Your task to perform on an android device: Clear all items from cart on ebay. Search for logitech g pro on ebay, select the first entry, add it to the cart, then select checkout. Image 0: 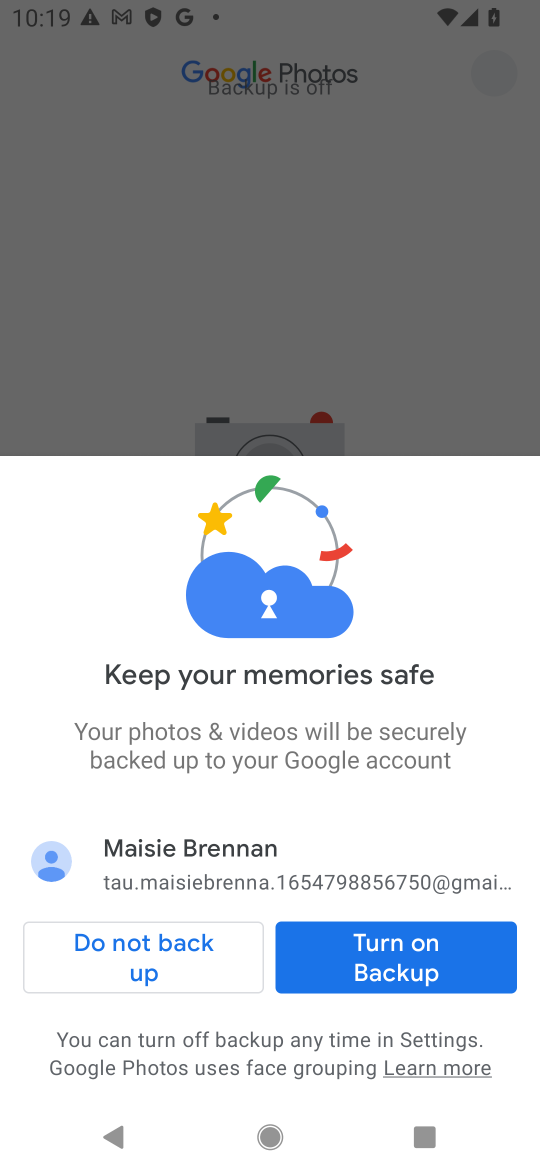
Step 0: press home button
Your task to perform on an android device: Clear all items from cart on ebay. Search for logitech g pro on ebay, select the first entry, add it to the cart, then select checkout. Image 1: 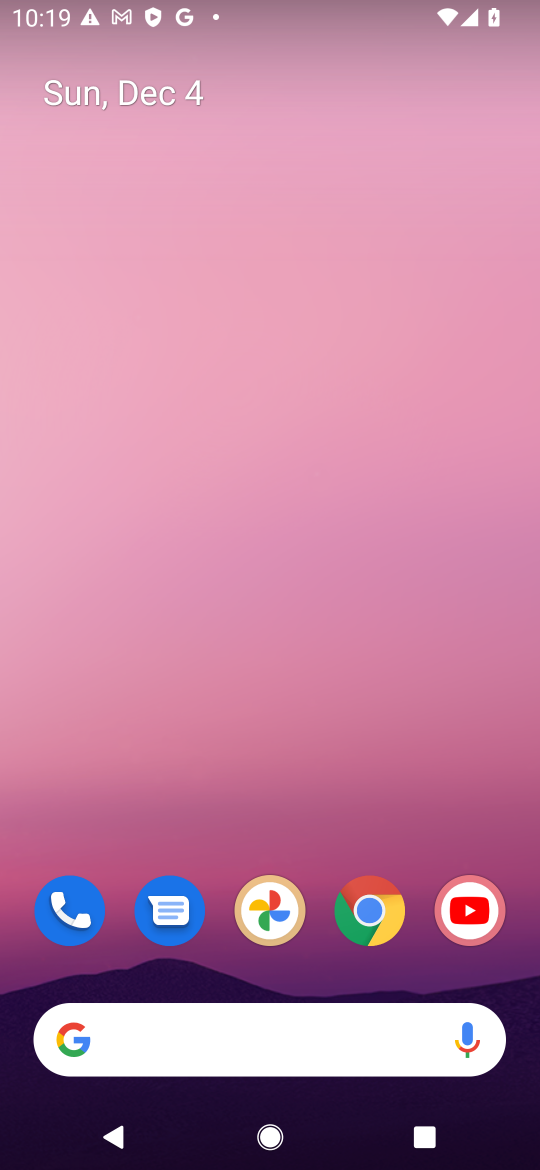
Step 1: drag from (331, 1090) to (353, 154)
Your task to perform on an android device: Clear all items from cart on ebay. Search for logitech g pro on ebay, select the first entry, add it to the cart, then select checkout. Image 2: 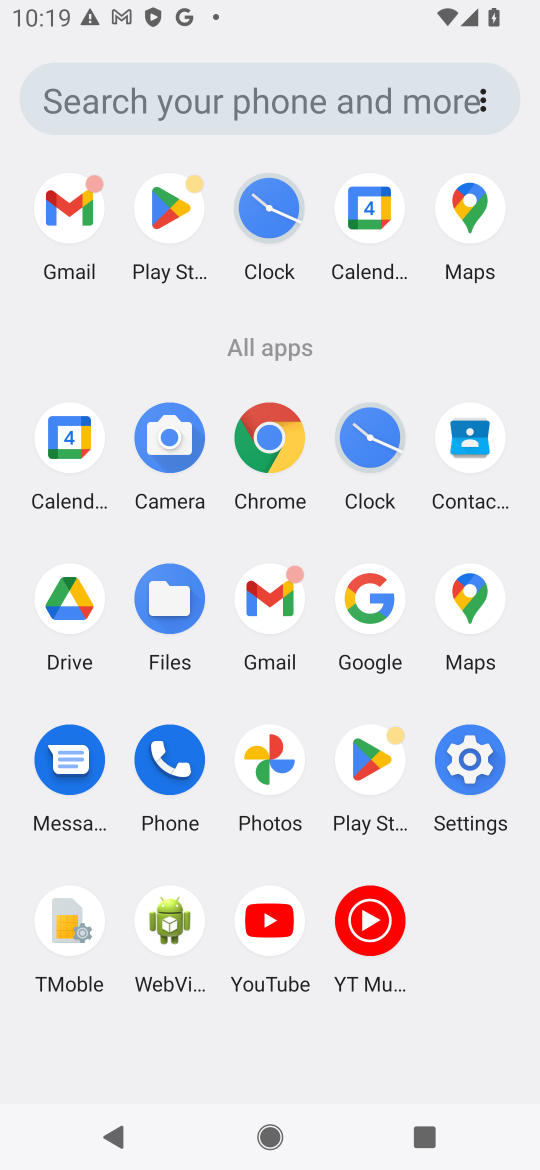
Step 2: click (277, 436)
Your task to perform on an android device: Clear all items from cart on ebay. Search for logitech g pro on ebay, select the first entry, add it to the cart, then select checkout. Image 3: 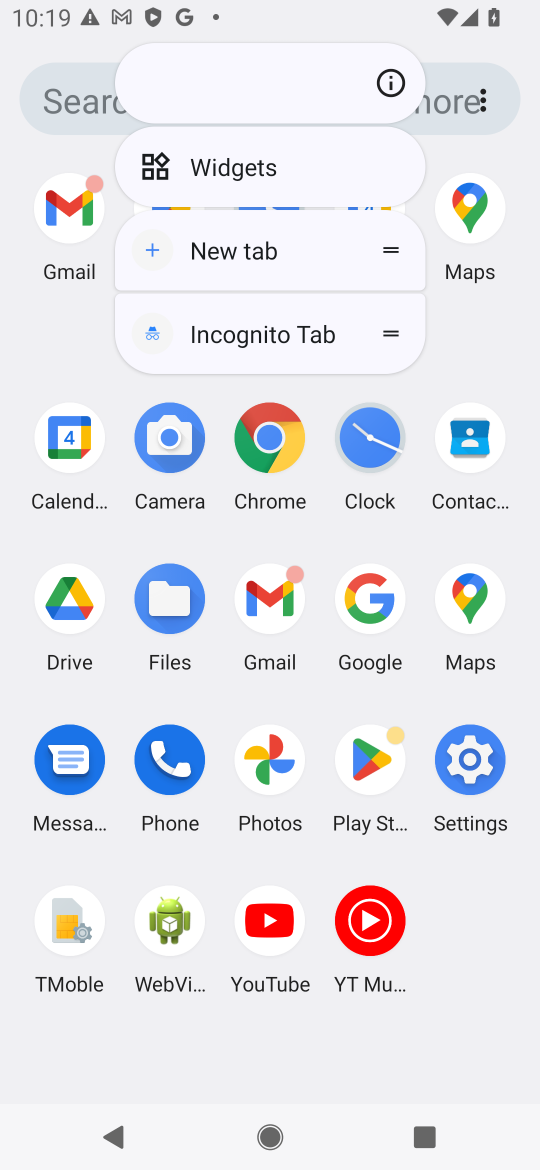
Step 3: click (283, 439)
Your task to perform on an android device: Clear all items from cart on ebay. Search for logitech g pro on ebay, select the first entry, add it to the cart, then select checkout. Image 4: 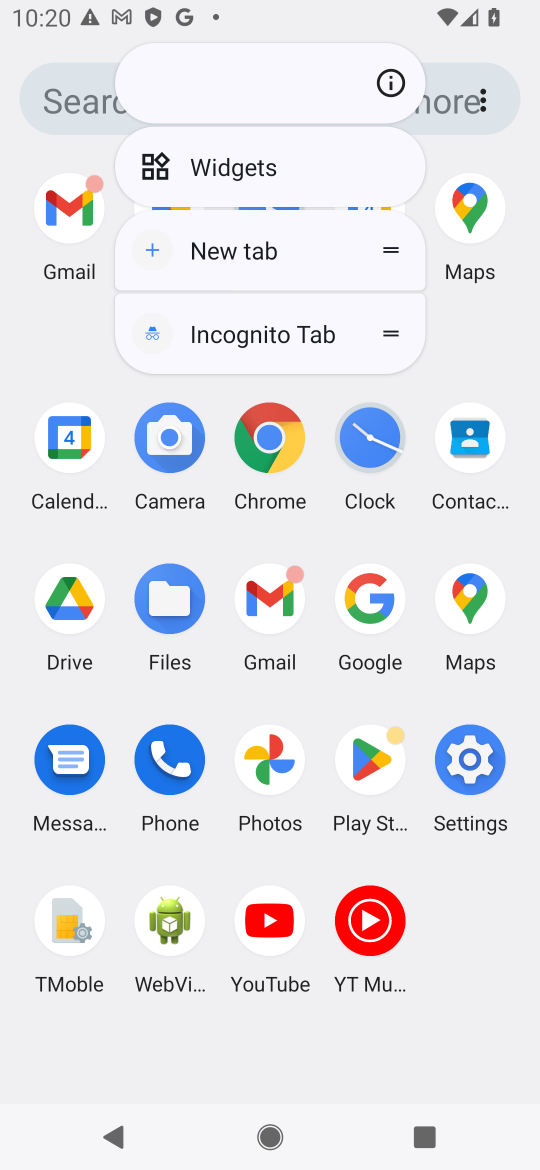
Step 4: click (279, 430)
Your task to perform on an android device: Clear all items from cart on ebay. Search for logitech g pro on ebay, select the first entry, add it to the cart, then select checkout. Image 5: 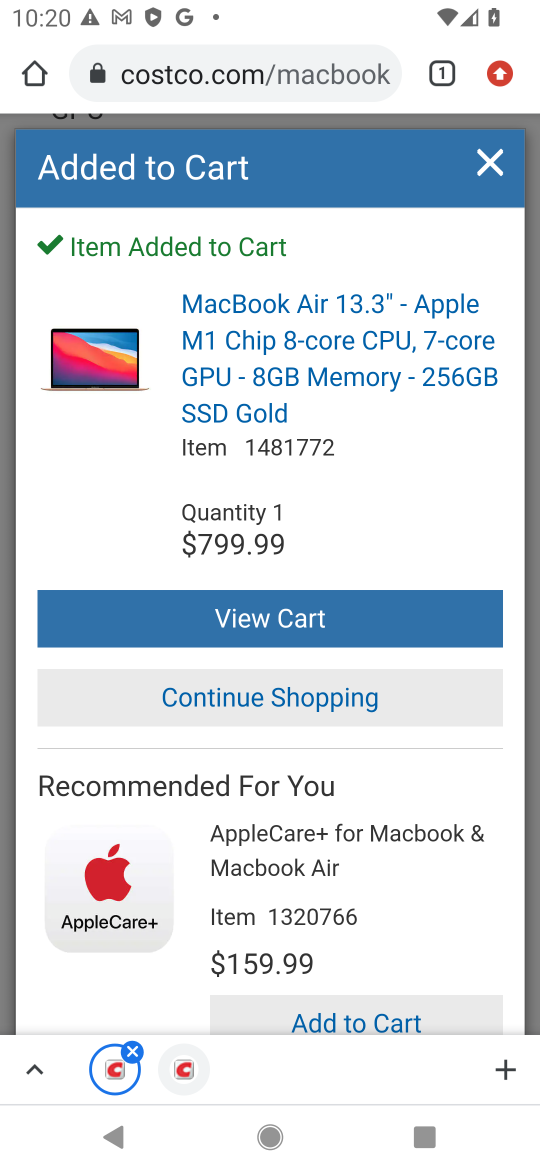
Step 5: click (315, 67)
Your task to perform on an android device: Clear all items from cart on ebay. Search for logitech g pro on ebay, select the first entry, add it to the cart, then select checkout. Image 6: 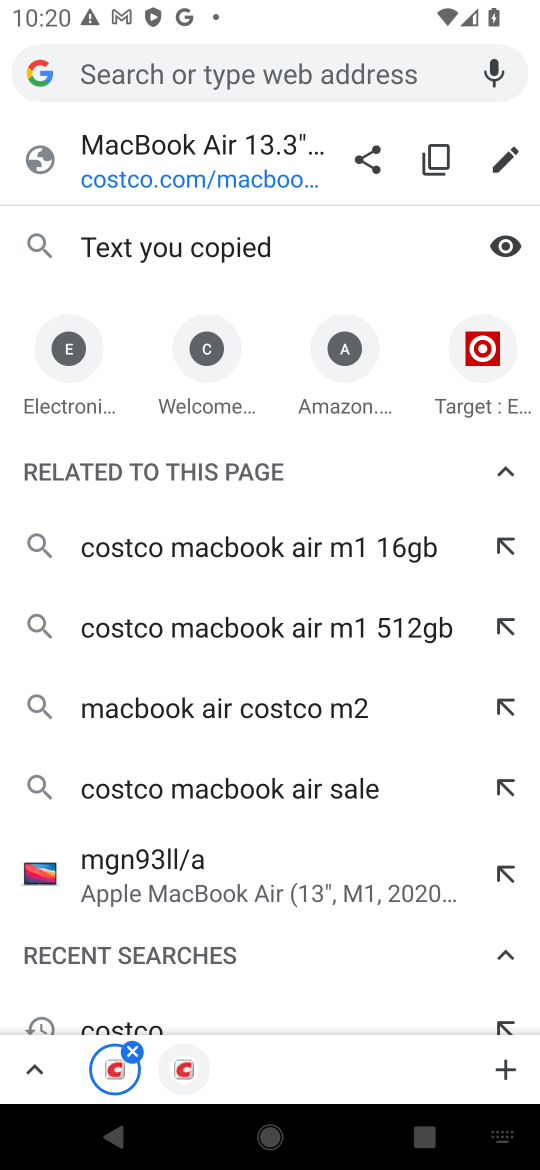
Step 6: type "ebay"
Your task to perform on an android device: Clear all items from cart on ebay. Search for logitech g pro on ebay, select the first entry, add it to the cart, then select checkout. Image 7: 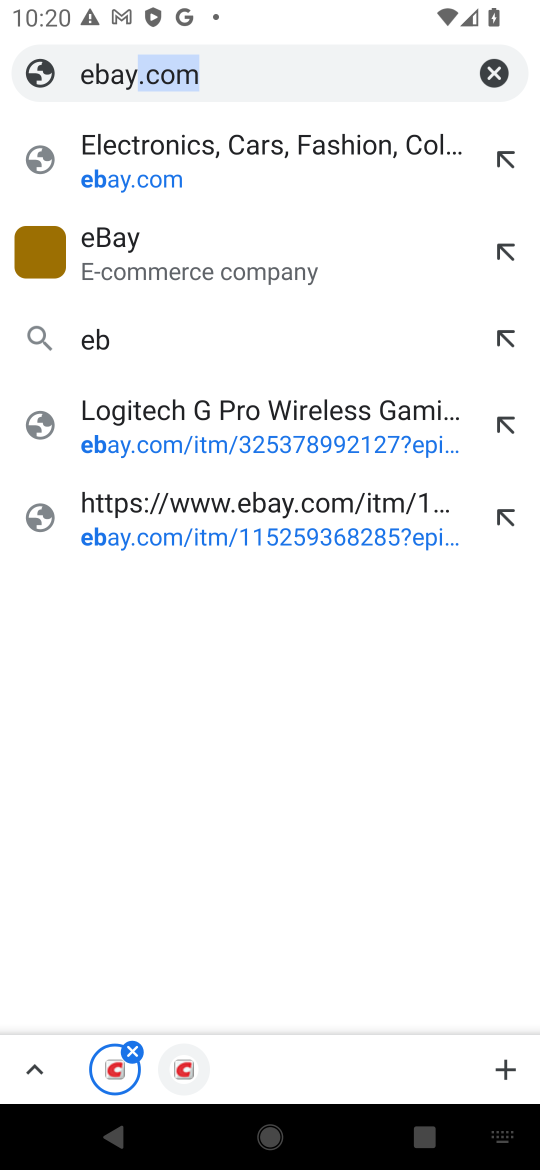
Step 7: type ""
Your task to perform on an android device: Clear all items from cart on ebay. Search for logitech g pro on ebay, select the first entry, add it to the cart, then select checkout. Image 8: 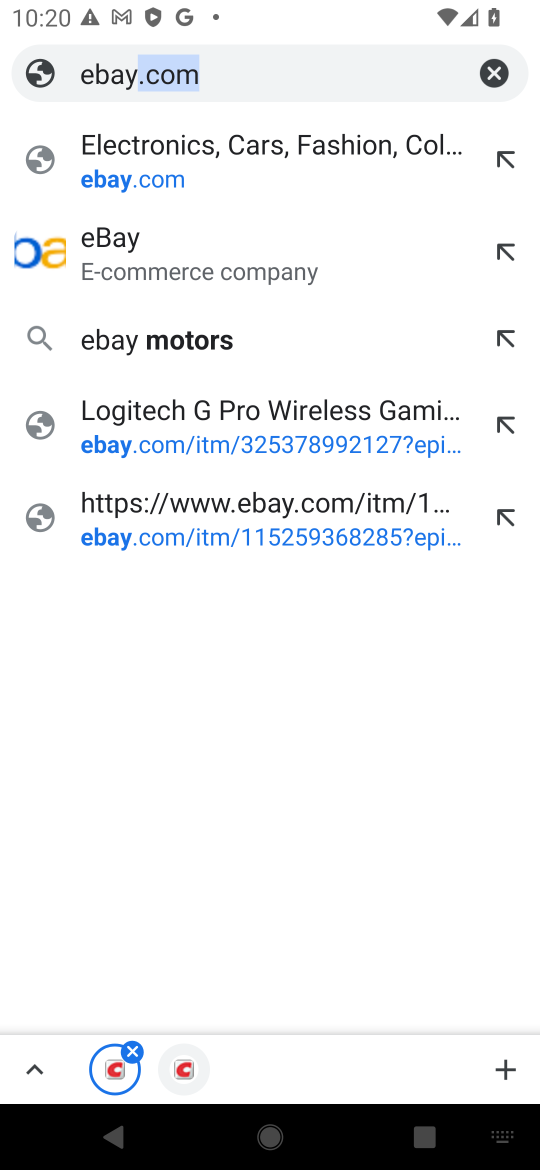
Step 8: click (148, 171)
Your task to perform on an android device: Clear all items from cart on ebay. Search for logitech g pro on ebay, select the first entry, add it to the cart, then select checkout. Image 9: 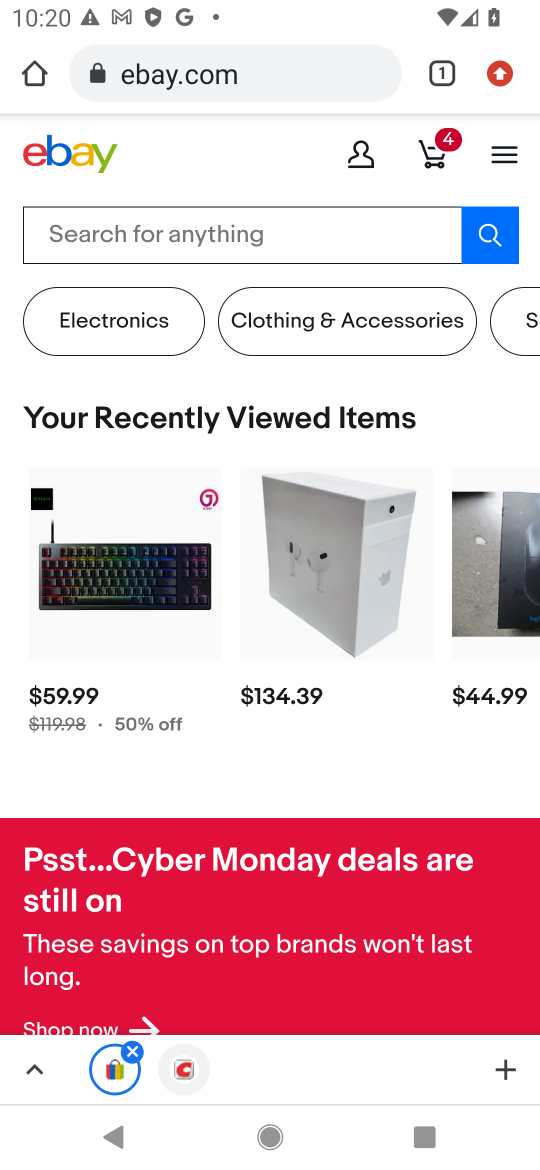
Step 9: click (440, 148)
Your task to perform on an android device: Clear all items from cart on ebay. Search for logitech g pro on ebay, select the first entry, add it to the cart, then select checkout. Image 10: 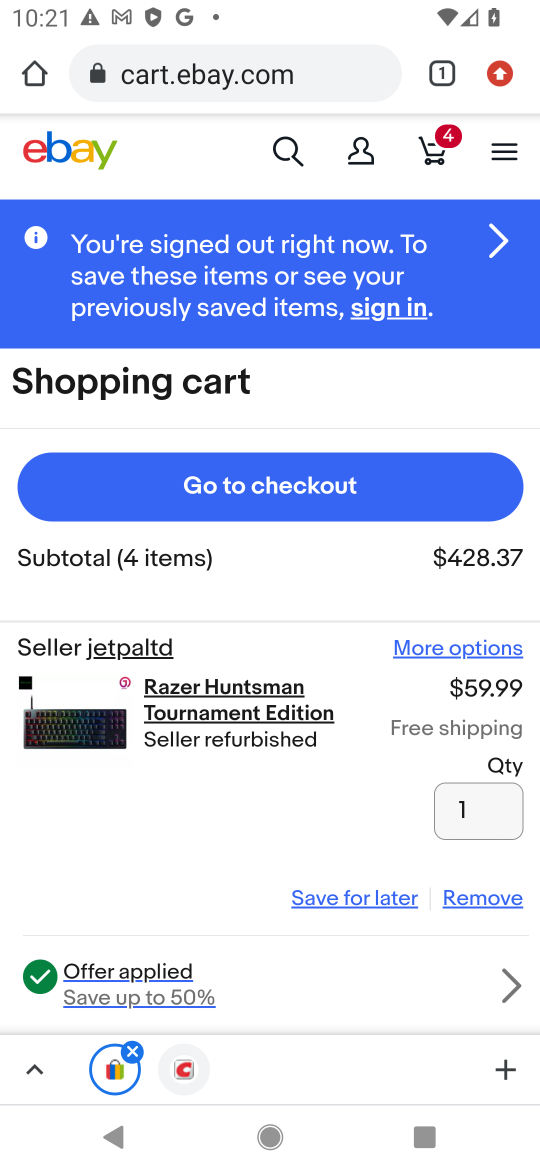
Step 10: drag from (275, 838) to (398, 931)
Your task to perform on an android device: Clear all items from cart on ebay. Search for logitech g pro on ebay, select the first entry, add it to the cart, then select checkout. Image 11: 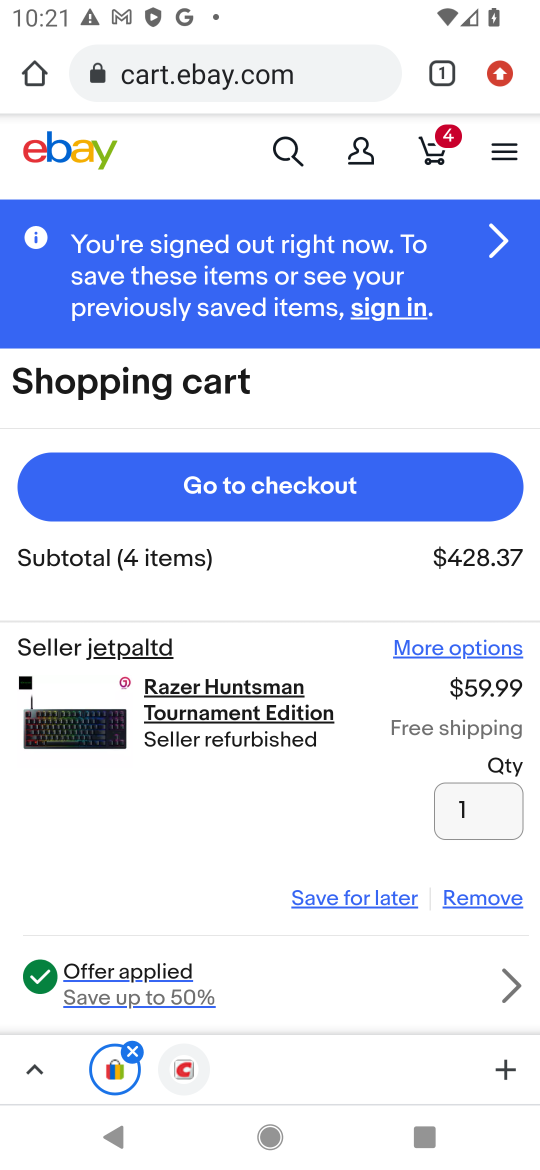
Step 11: click (485, 897)
Your task to perform on an android device: Clear all items from cart on ebay. Search for logitech g pro on ebay, select the first entry, add it to the cart, then select checkout. Image 12: 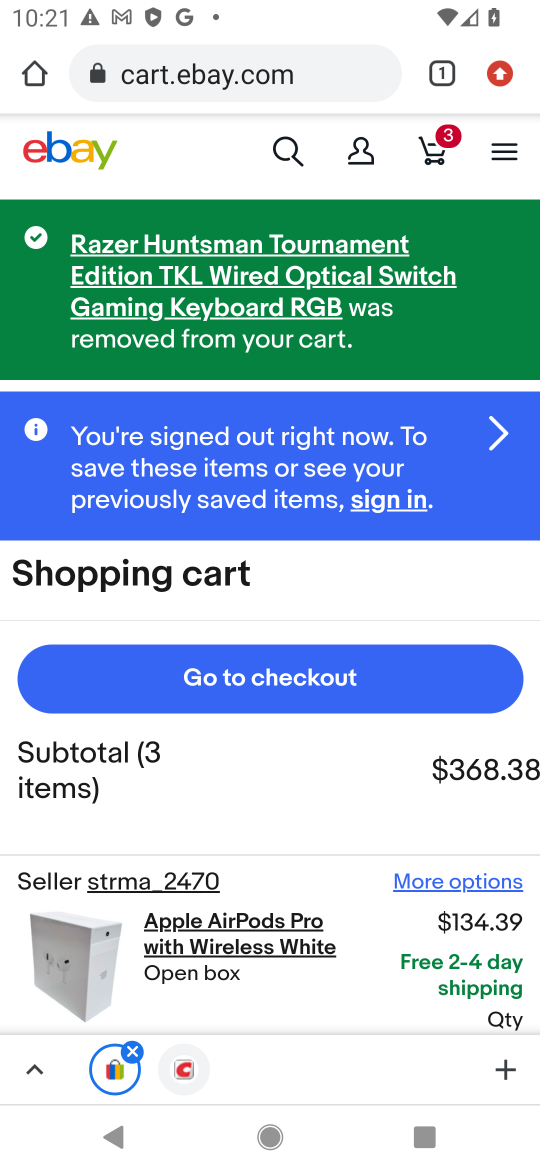
Step 12: drag from (361, 669) to (359, 352)
Your task to perform on an android device: Clear all items from cart on ebay. Search for logitech g pro on ebay, select the first entry, add it to the cart, then select checkout. Image 13: 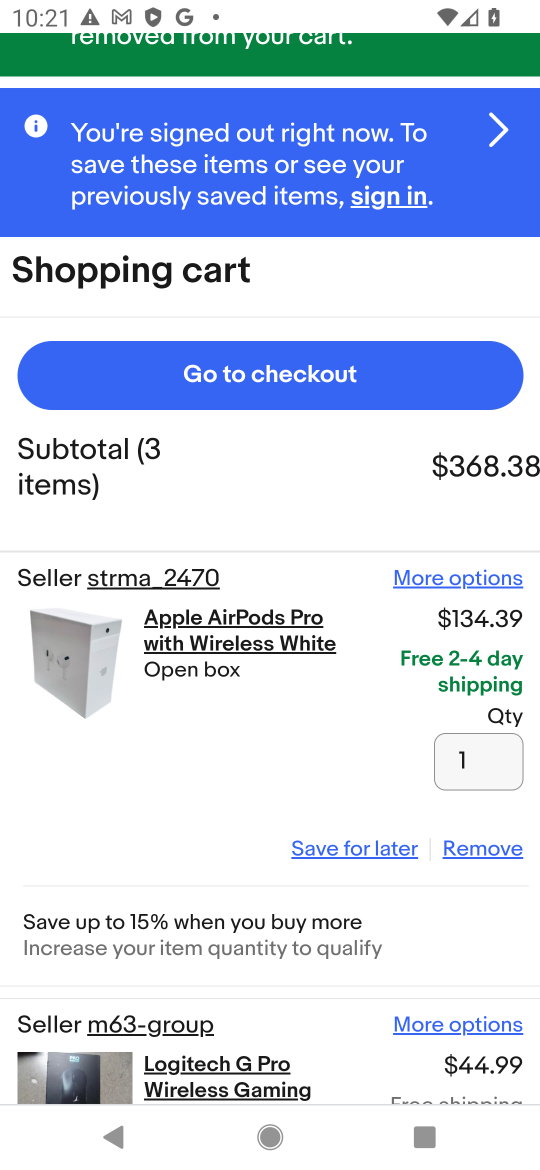
Step 13: click (476, 847)
Your task to perform on an android device: Clear all items from cart on ebay. Search for logitech g pro on ebay, select the first entry, add it to the cart, then select checkout. Image 14: 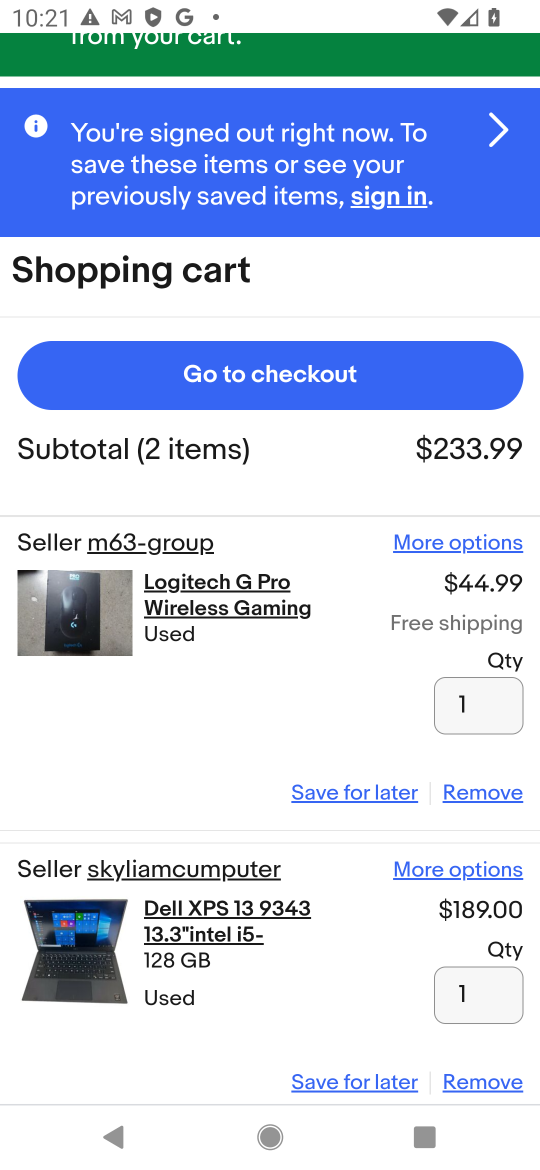
Step 14: click (474, 792)
Your task to perform on an android device: Clear all items from cart on ebay. Search for logitech g pro on ebay, select the first entry, add it to the cart, then select checkout. Image 15: 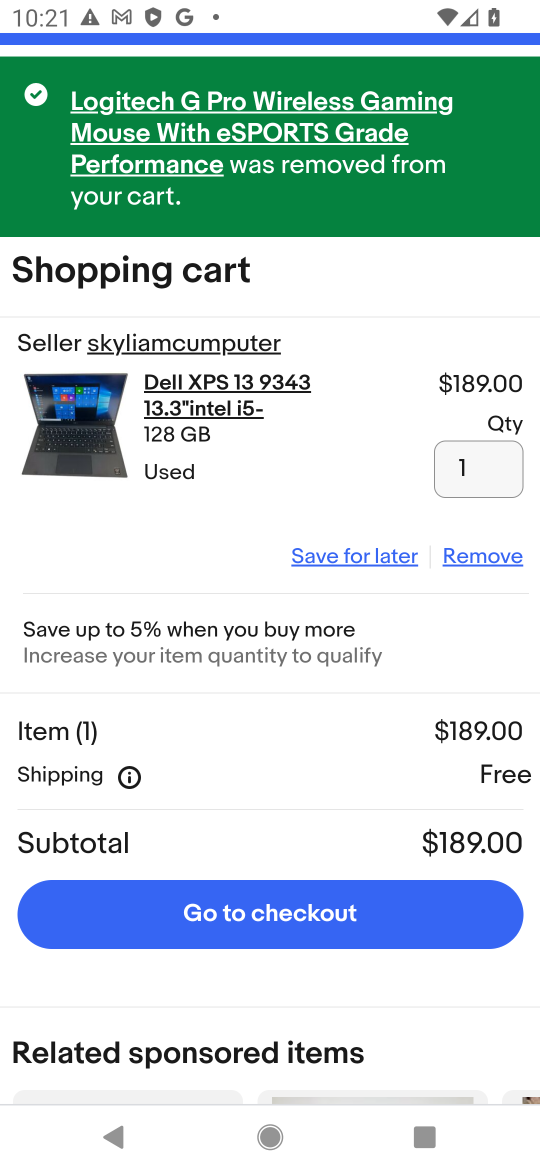
Step 15: click (475, 555)
Your task to perform on an android device: Clear all items from cart on ebay. Search for logitech g pro on ebay, select the first entry, add it to the cart, then select checkout. Image 16: 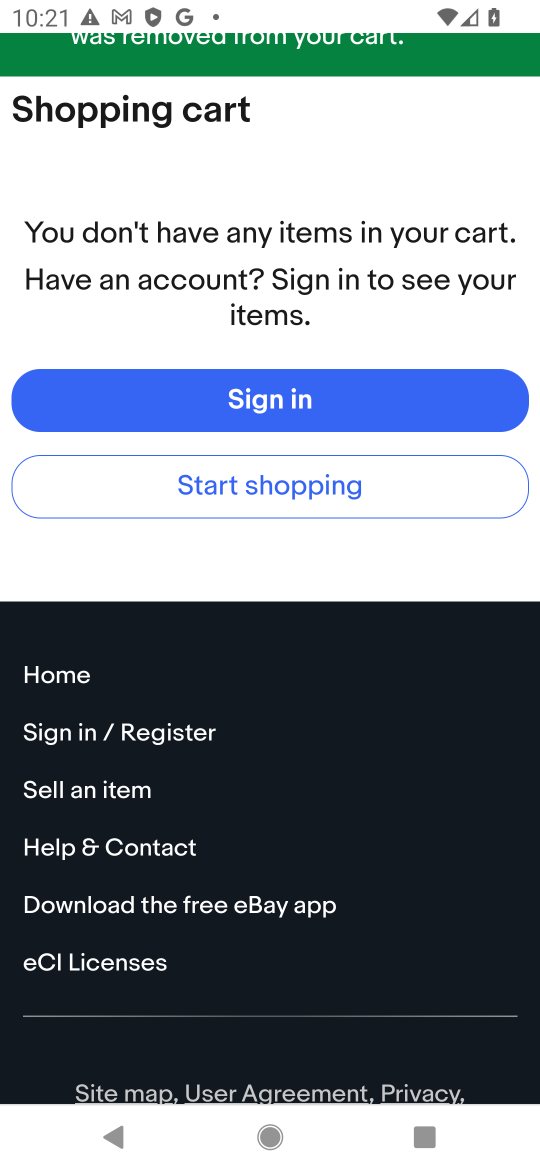
Step 16: drag from (368, 249) to (366, 880)
Your task to perform on an android device: Clear all items from cart on ebay. Search for logitech g pro on ebay, select the first entry, add it to the cart, then select checkout. Image 17: 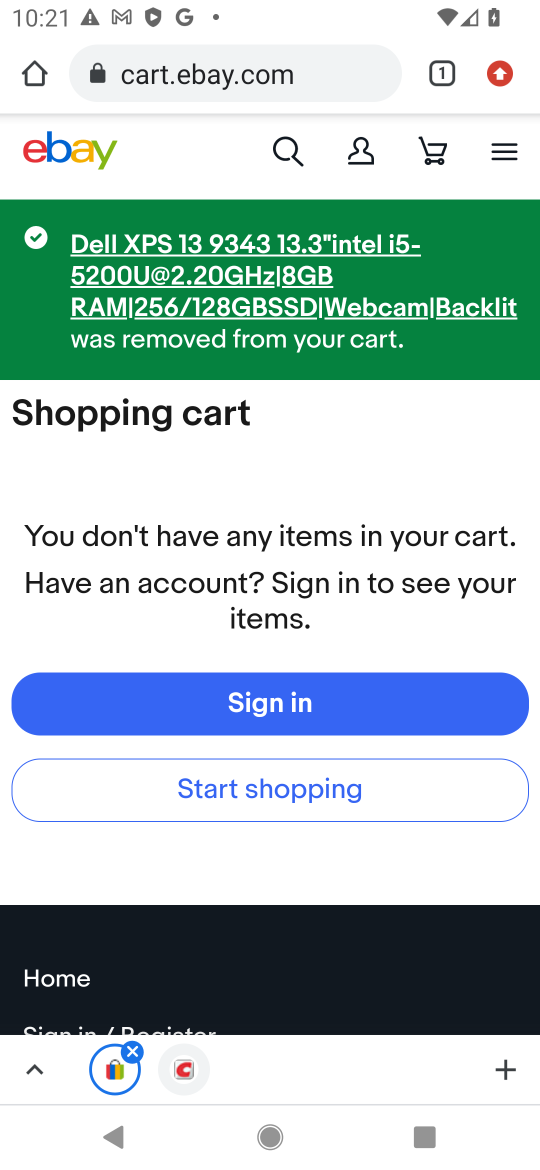
Step 17: click (281, 146)
Your task to perform on an android device: Clear all items from cart on ebay. Search for logitech g pro on ebay, select the first entry, add it to the cart, then select checkout. Image 18: 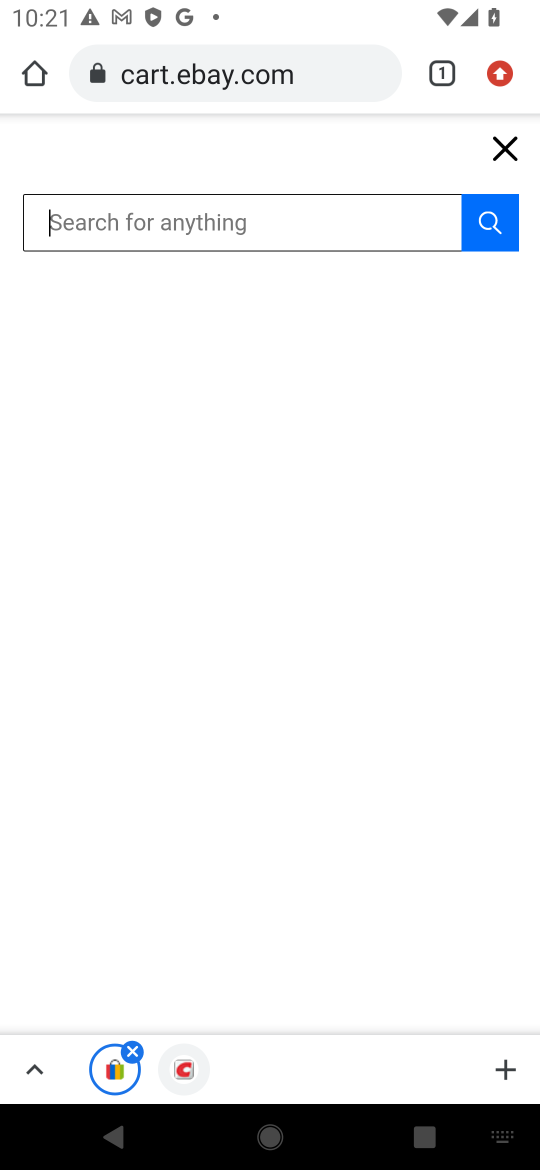
Step 18: type " logitech g pro"
Your task to perform on an android device: Clear all items from cart on ebay. Search for logitech g pro on ebay, select the first entry, add it to the cart, then select checkout. Image 19: 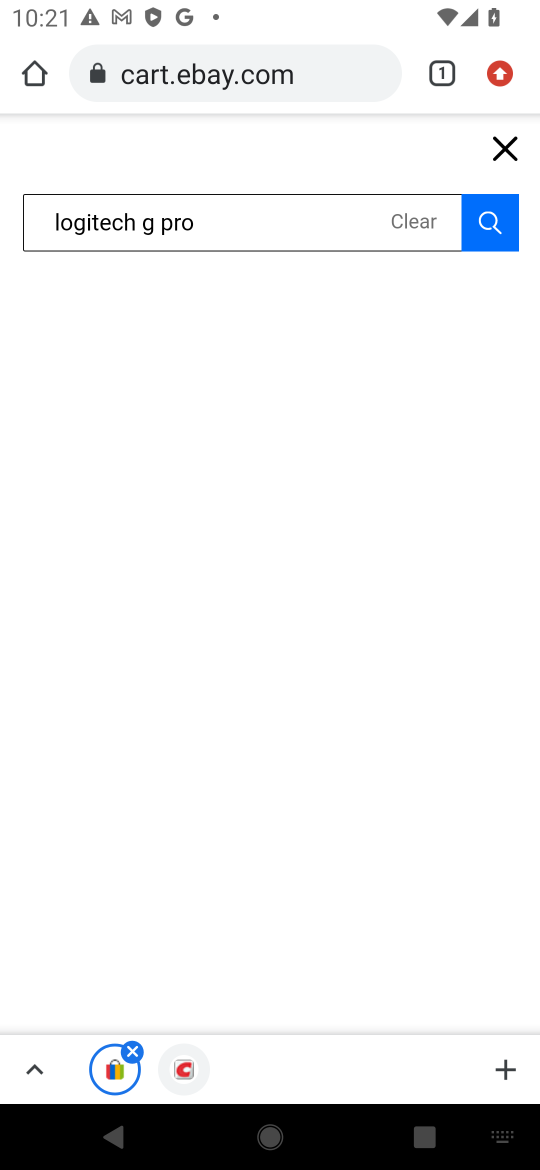
Step 19: click (491, 232)
Your task to perform on an android device: Clear all items from cart on ebay. Search for logitech g pro on ebay, select the first entry, add it to the cart, then select checkout. Image 20: 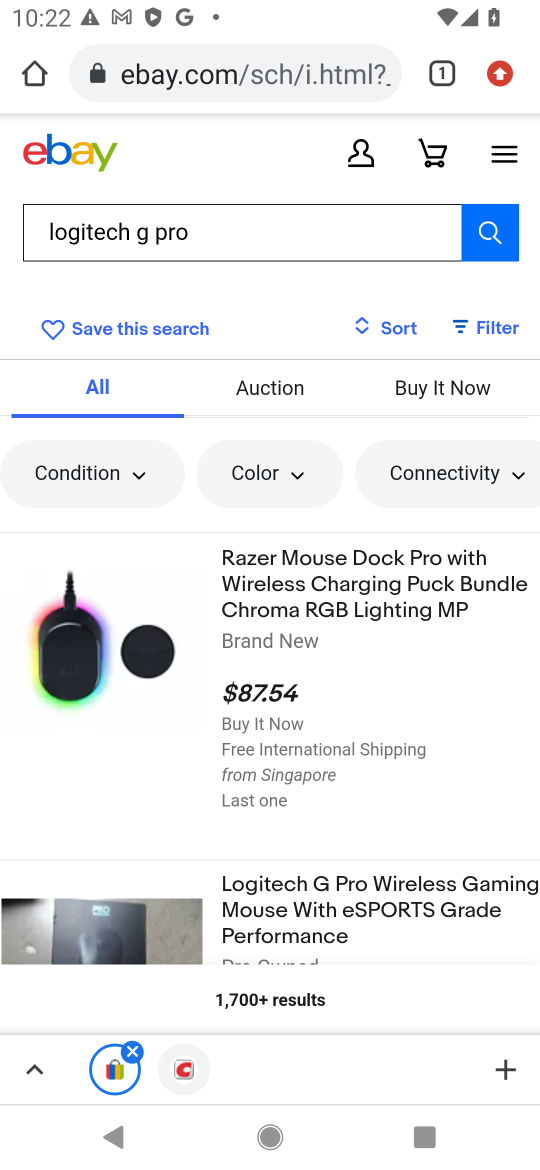
Step 20: drag from (169, 680) to (198, 298)
Your task to perform on an android device: Clear all items from cart on ebay. Search for logitech g pro on ebay, select the first entry, add it to the cart, then select checkout. Image 21: 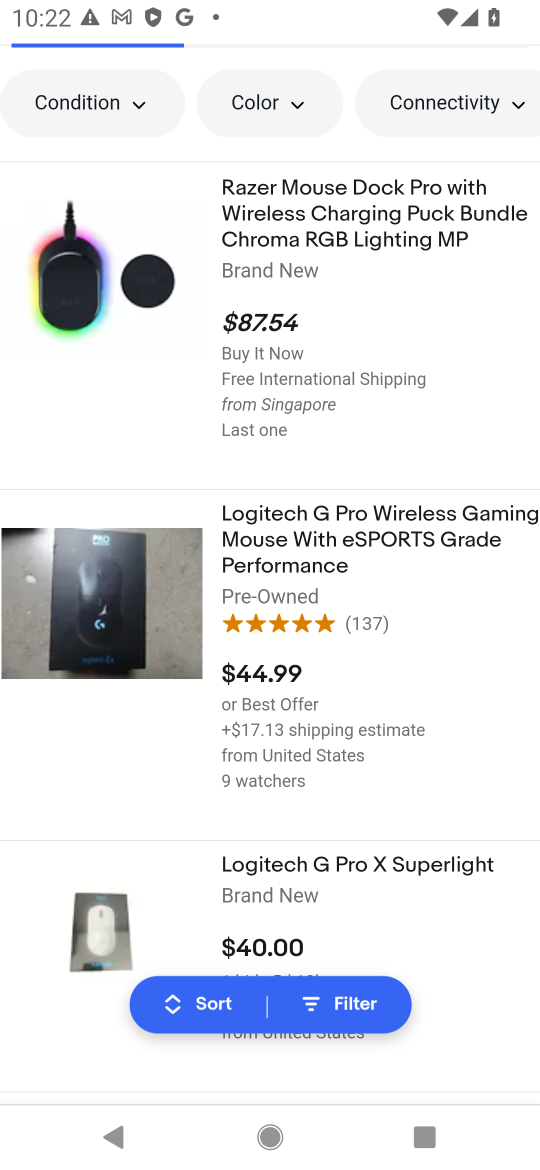
Step 21: click (165, 332)
Your task to perform on an android device: Clear all items from cart on ebay. Search for logitech g pro on ebay, select the first entry, add it to the cart, then select checkout. Image 22: 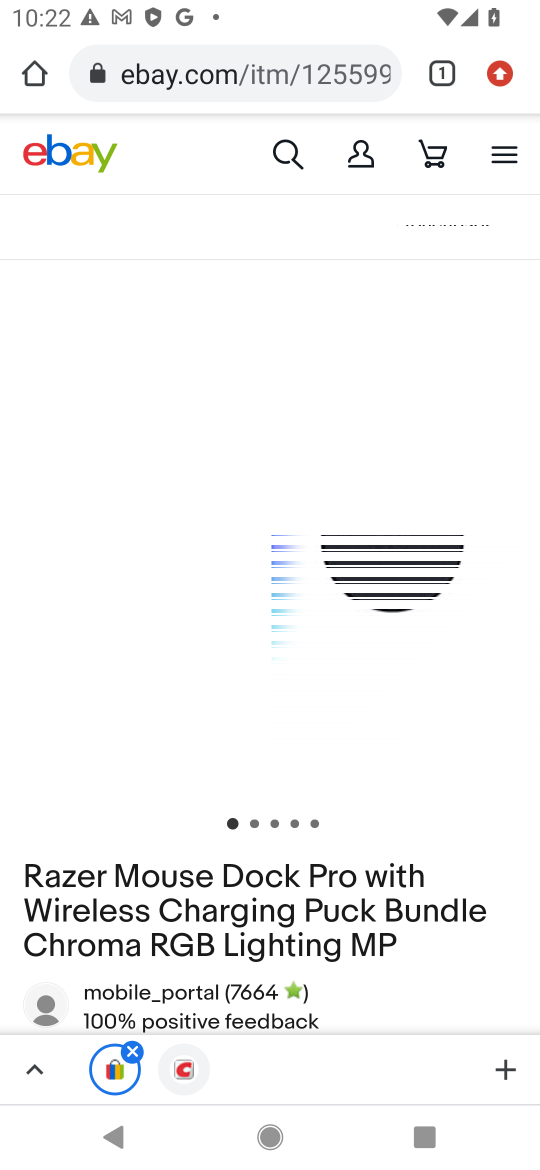
Step 22: drag from (372, 915) to (368, 353)
Your task to perform on an android device: Clear all items from cart on ebay. Search for logitech g pro on ebay, select the first entry, add it to the cart, then select checkout. Image 23: 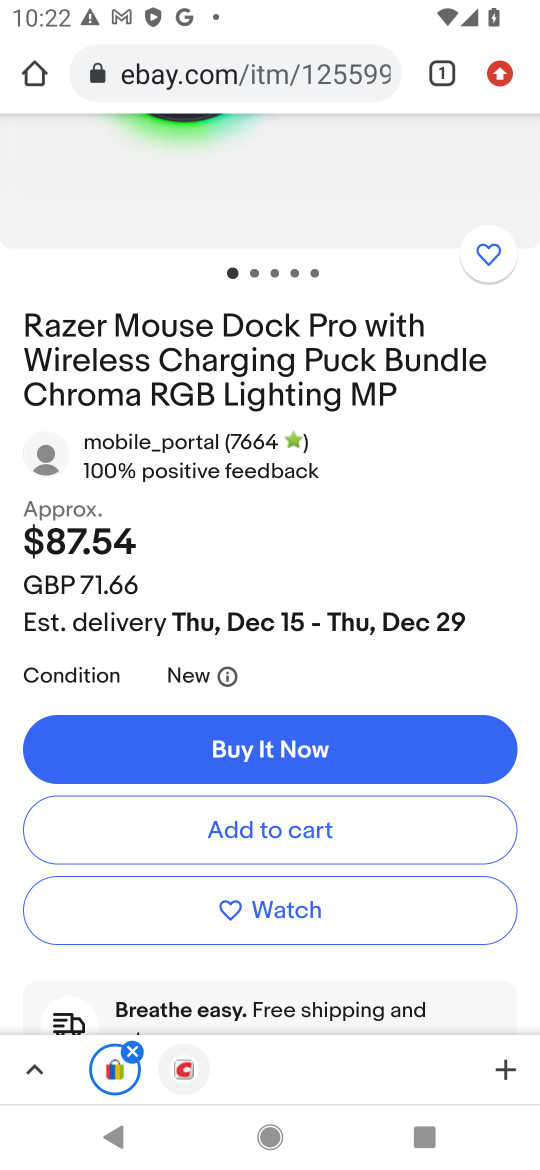
Step 23: click (283, 816)
Your task to perform on an android device: Clear all items from cart on ebay. Search for logitech g pro on ebay, select the first entry, add it to the cart, then select checkout. Image 24: 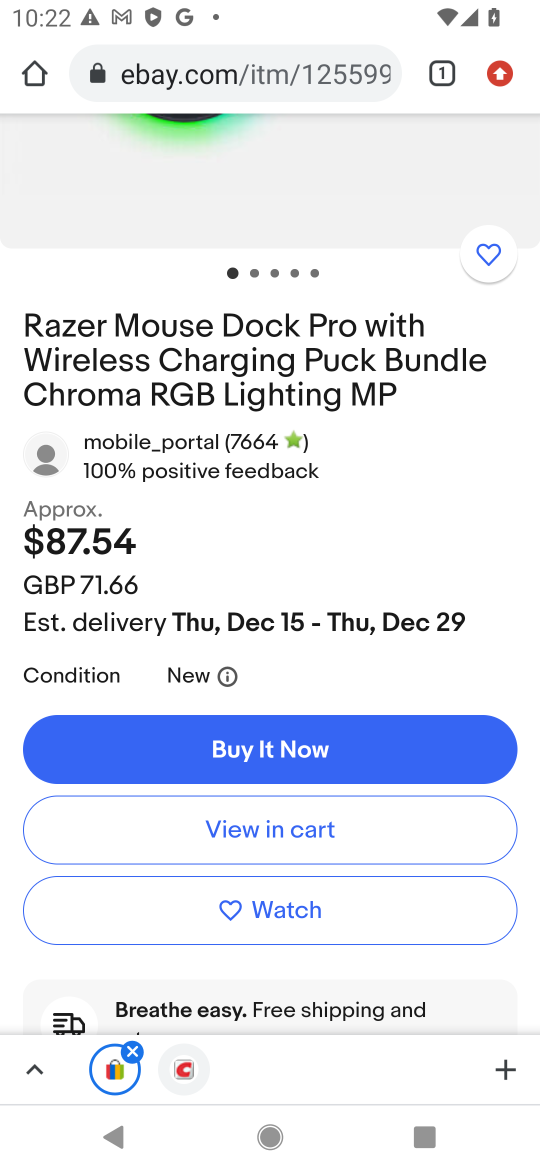
Step 24: task complete